Your task to perform on an android device: turn off picture-in-picture Image 0: 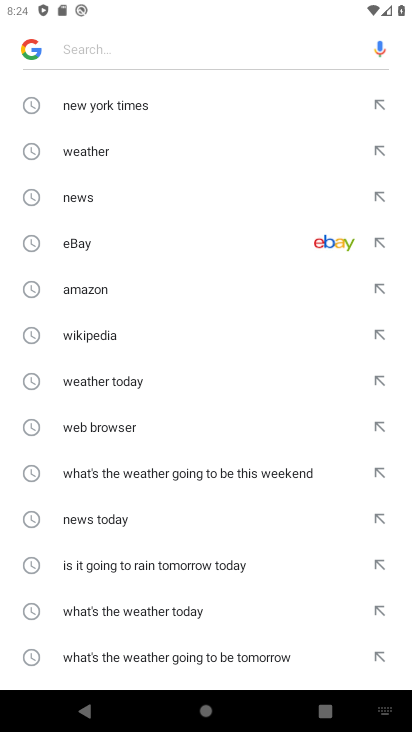
Step 0: press home button
Your task to perform on an android device: turn off picture-in-picture Image 1: 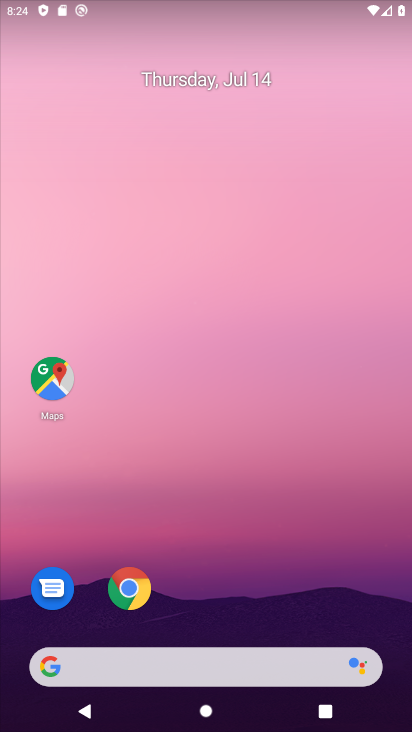
Step 1: click (133, 590)
Your task to perform on an android device: turn off picture-in-picture Image 2: 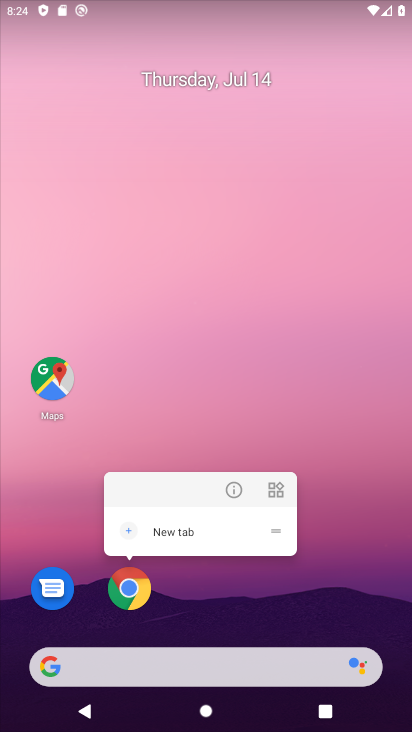
Step 2: click (232, 494)
Your task to perform on an android device: turn off picture-in-picture Image 3: 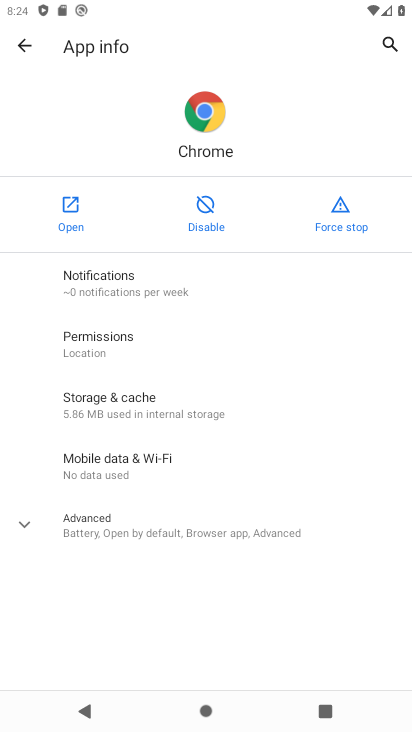
Step 3: click (81, 522)
Your task to perform on an android device: turn off picture-in-picture Image 4: 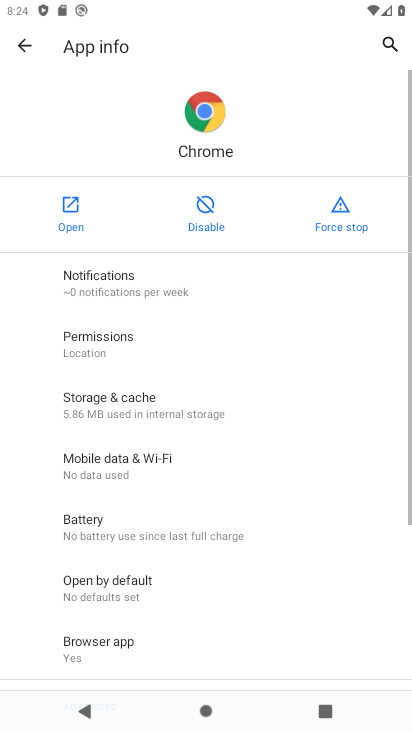
Step 4: drag from (209, 585) to (220, 145)
Your task to perform on an android device: turn off picture-in-picture Image 5: 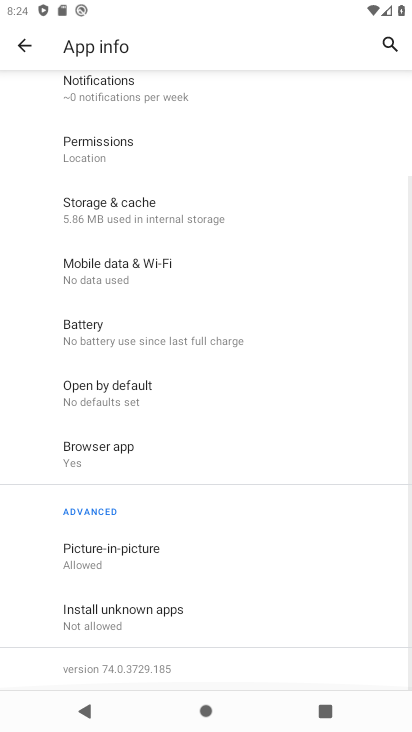
Step 5: click (113, 549)
Your task to perform on an android device: turn off picture-in-picture Image 6: 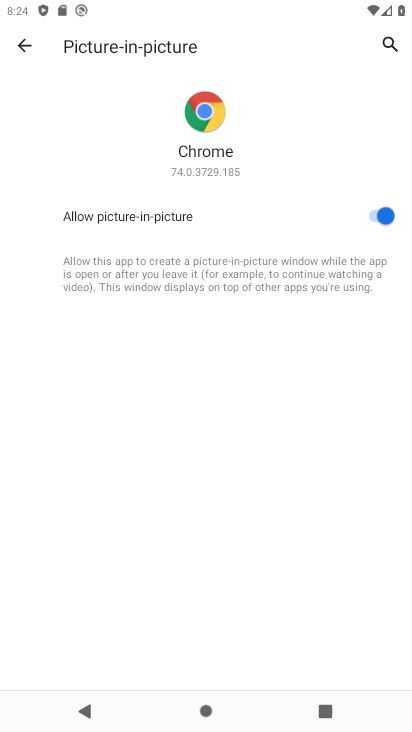
Step 6: click (378, 223)
Your task to perform on an android device: turn off picture-in-picture Image 7: 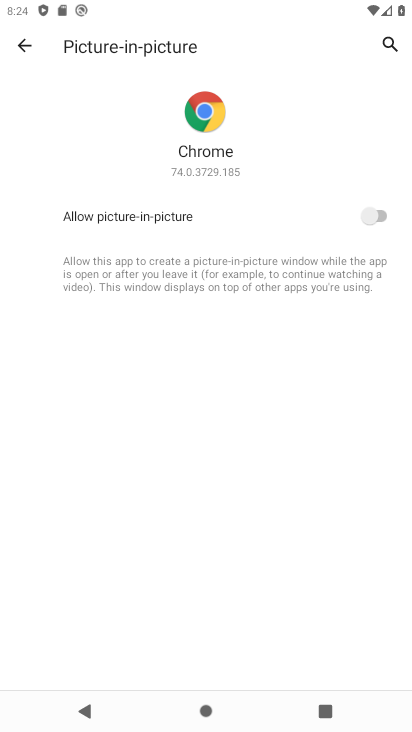
Step 7: task complete